Your task to perform on an android device: Open notification settings Image 0: 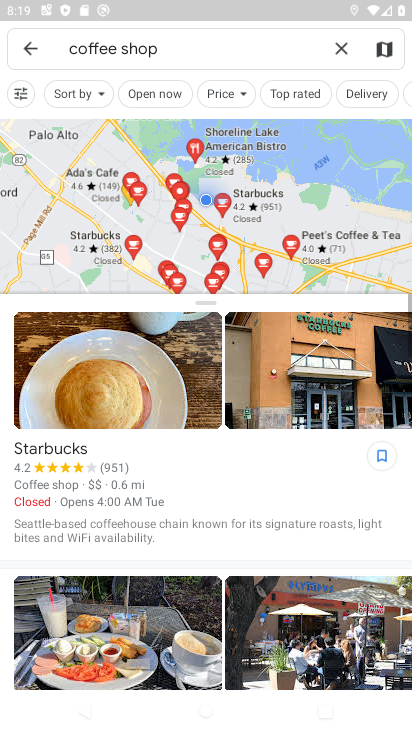
Step 0: press home button
Your task to perform on an android device: Open notification settings Image 1: 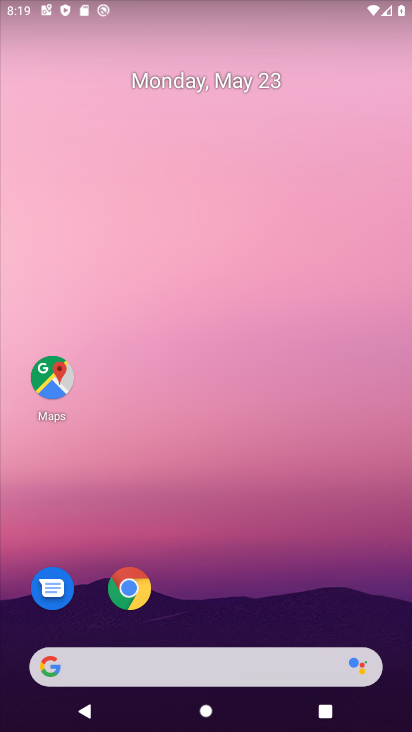
Step 1: drag from (378, 535) to (373, 312)
Your task to perform on an android device: Open notification settings Image 2: 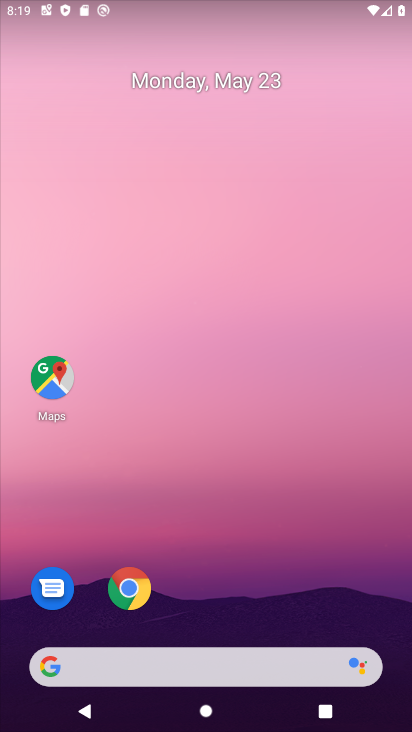
Step 2: drag from (393, 717) to (366, 407)
Your task to perform on an android device: Open notification settings Image 3: 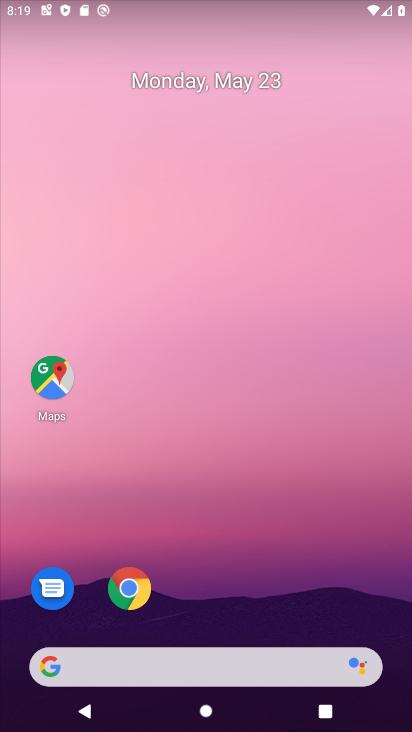
Step 3: drag from (385, 689) to (389, 83)
Your task to perform on an android device: Open notification settings Image 4: 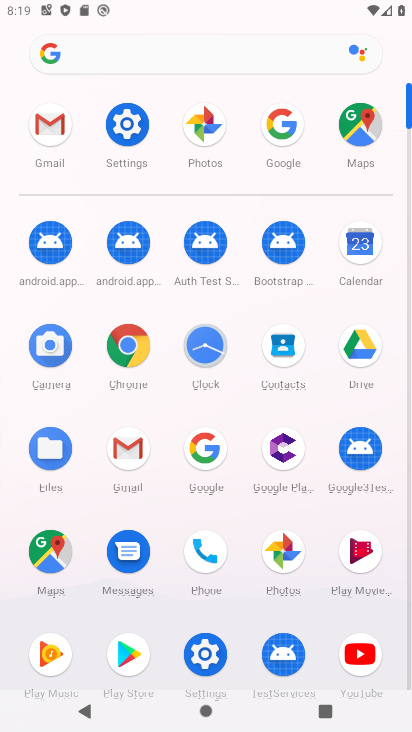
Step 4: click (137, 127)
Your task to perform on an android device: Open notification settings Image 5: 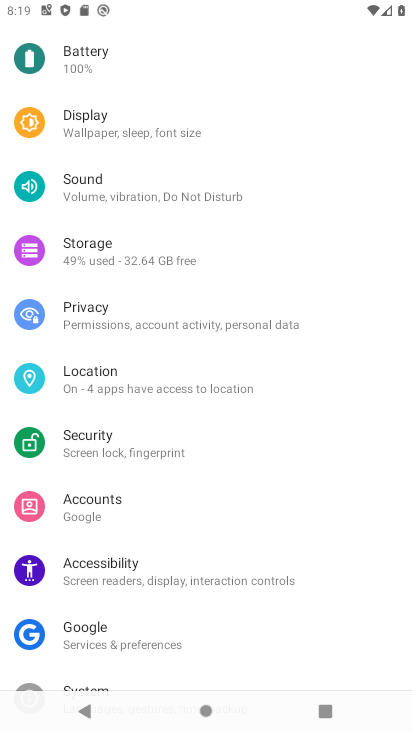
Step 5: drag from (261, 144) to (265, 471)
Your task to perform on an android device: Open notification settings Image 6: 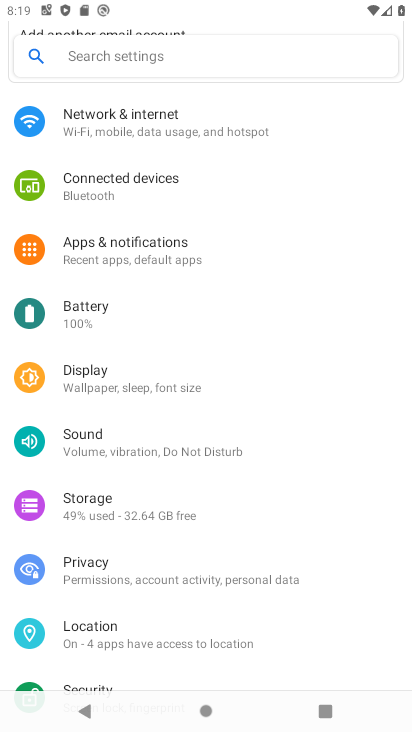
Step 6: click (132, 247)
Your task to perform on an android device: Open notification settings Image 7: 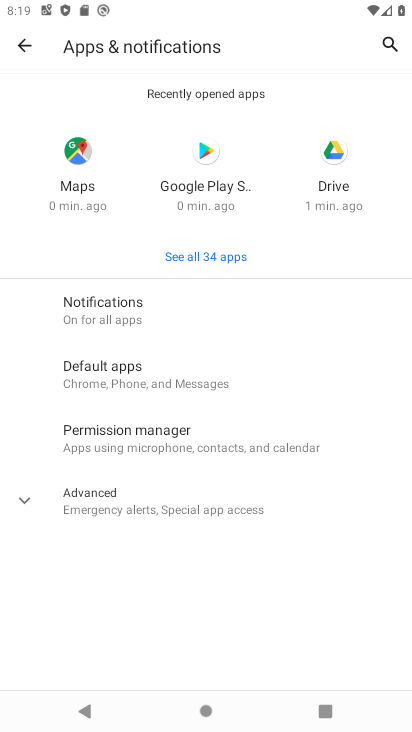
Step 7: click (94, 320)
Your task to perform on an android device: Open notification settings Image 8: 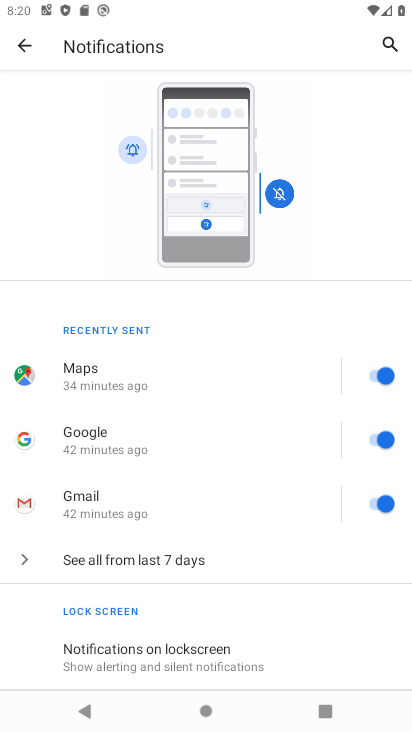
Step 8: drag from (290, 670) to (255, 235)
Your task to perform on an android device: Open notification settings Image 9: 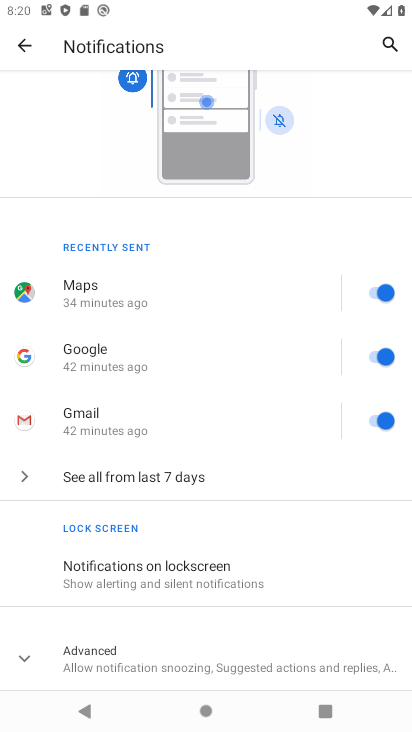
Step 9: click (38, 653)
Your task to perform on an android device: Open notification settings Image 10: 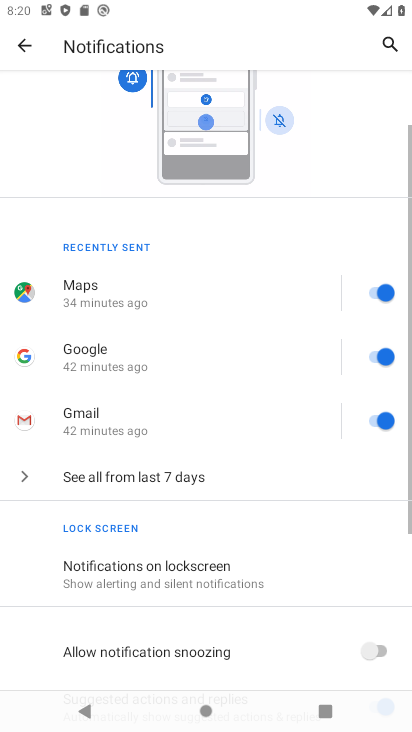
Step 10: task complete